Your task to perform on an android device: Open Google Maps and go to "Timeline" Image 0: 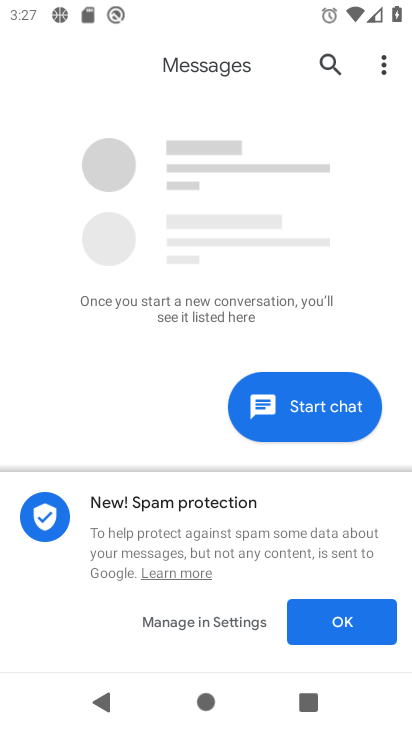
Step 0: press back button
Your task to perform on an android device: Open Google Maps and go to "Timeline" Image 1: 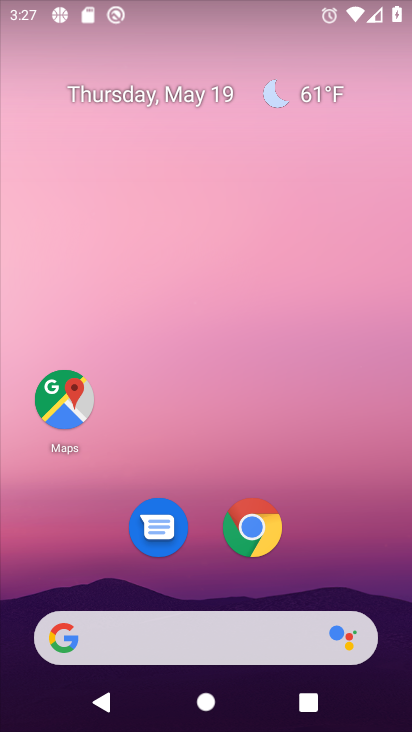
Step 1: click (79, 401)
Your task to perform on an android device: Open Google Maps and go to "Timeline" Image 2: 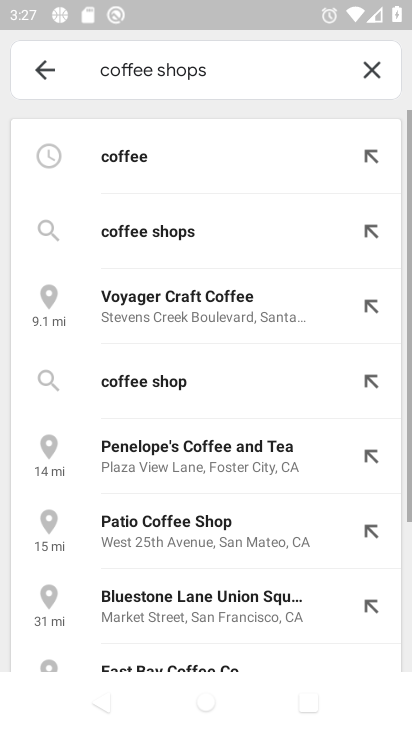
Step 2: click (42, 65)
Your task to perform on an android device: Open Google Maps and go to "Timeline" Image 3: 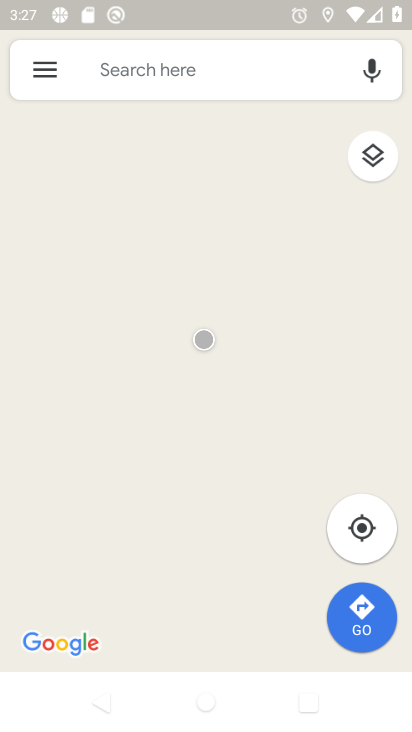
Step 3: click (44, 65)
Your task to perform on an android device: Open Google Maps and go to "Timeline" Image 4: 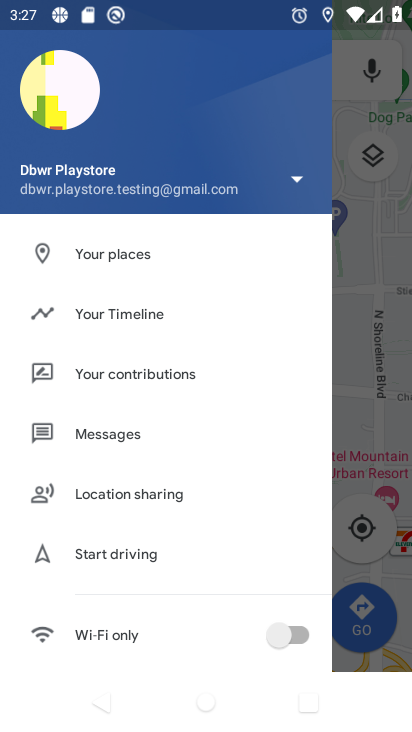
Step 4: click (107, 310)
Your task to perform on an android device: Open Google Maps and go to "Timeline" Image 5: 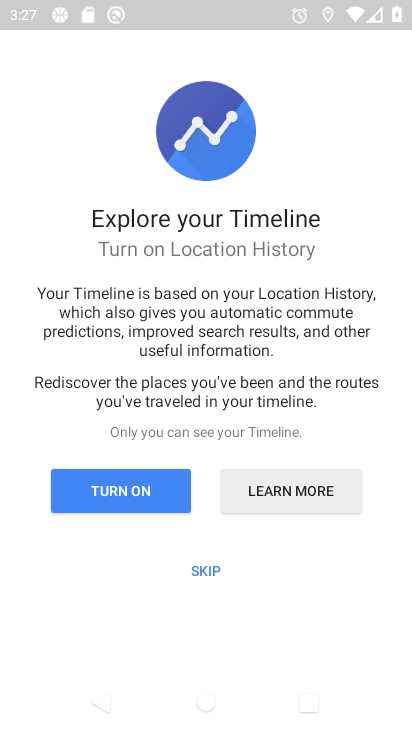
Step 5: click (187, 576)
Your task to perform on an android device: Open Google Maps and go to "Timeline" Image 6: 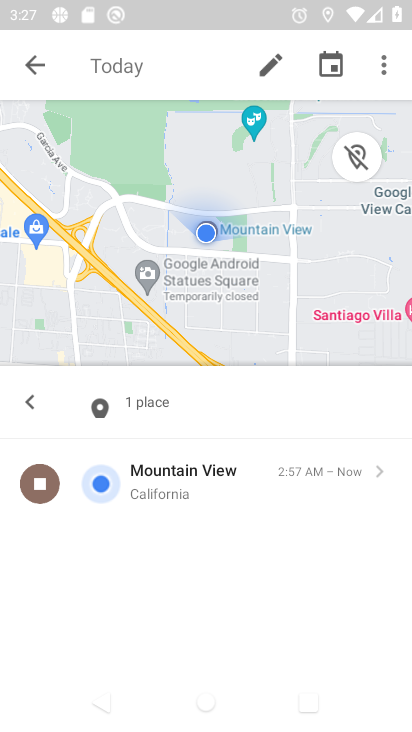
Step 6: task complete